Your task to perform on an android device: Open calendar and show me the second week of next month Image 0: 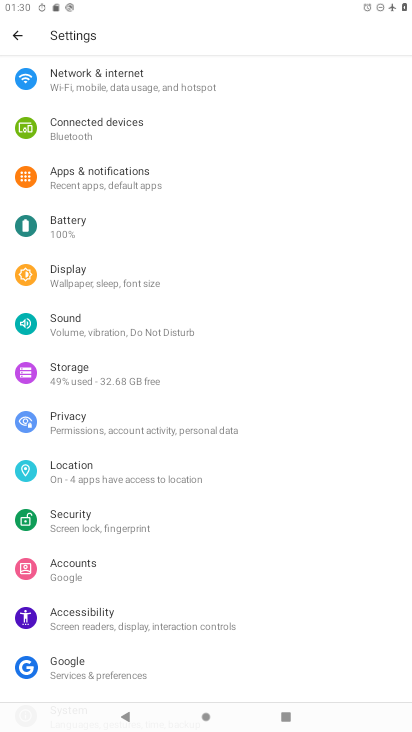
Step 0: press home button
Your task to perform on an android device: Open calendar and show me the second week of next month Image 1: 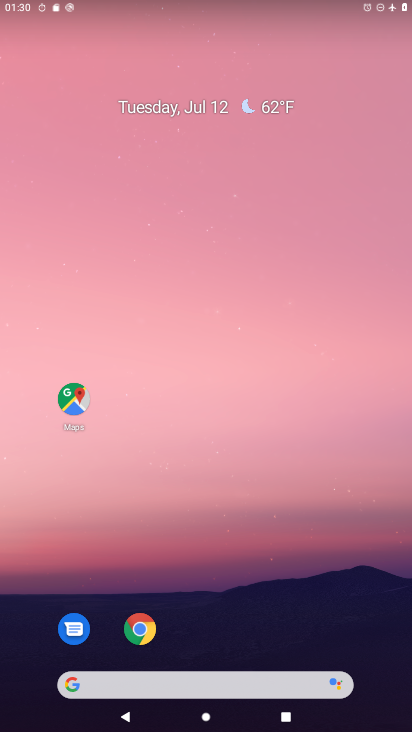
Step 1: drag from (264, 623) to (305, 2)
Your task to perform on an android device: Open calendar and show me the second week of next month Image 2: 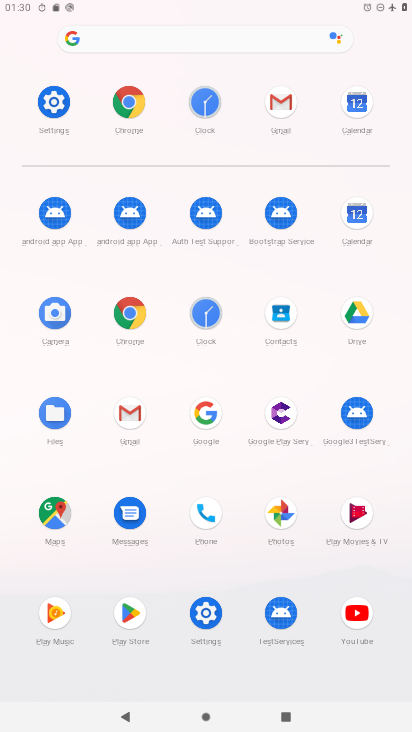
Step 2: click (352, 94)
Your task to perform on an android device: Open calendar and show me the second week of next month Image 3: 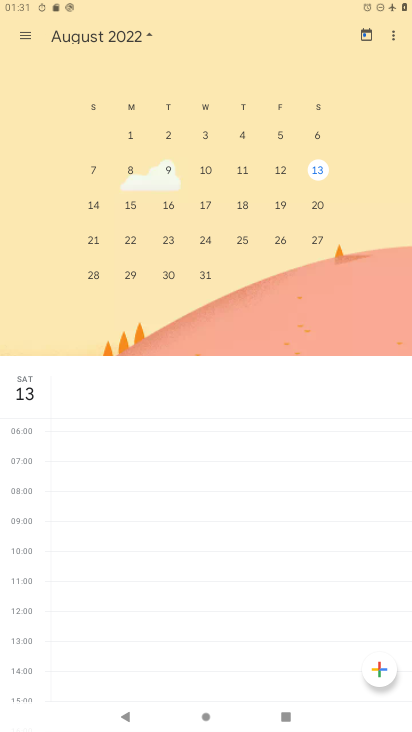
Step 3: click (322, 162)
Your task to perform on an android device: Open calendar and show me the second week of next month Image 4: 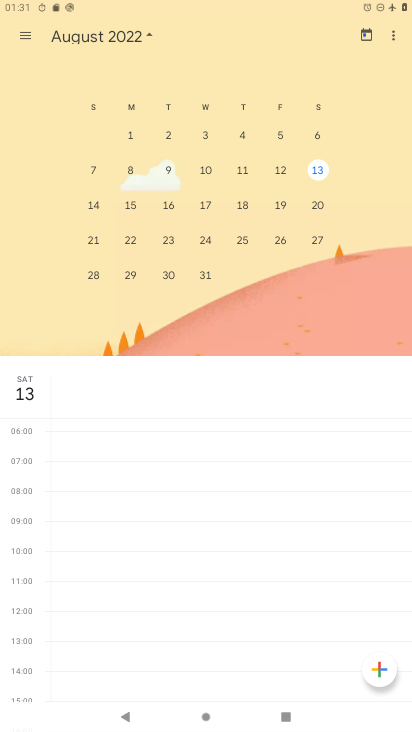
Step 4: task complete